Your task to perform on an android device: turn off data saver in the chrome app Image 0: 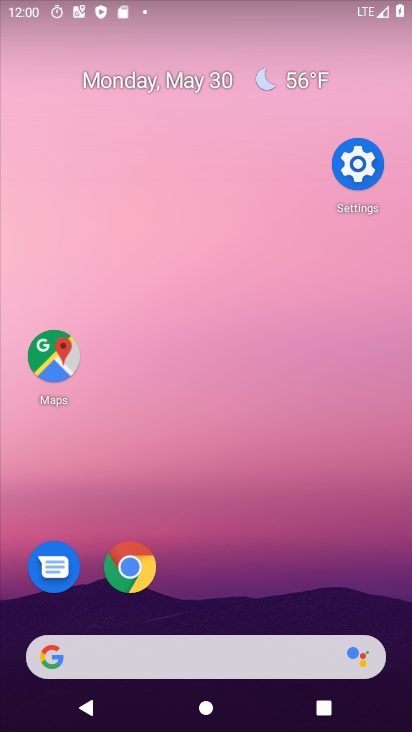
Step 0: drag from (330, 596) to (298, 214)
Your task to perform on an android device: turn off data saver in the chrome app Image 1: 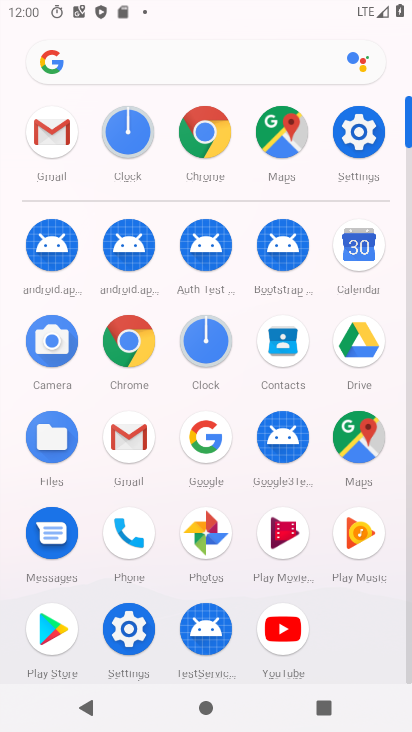
Step 1: click (105, 357)
Your task to perform on an android device: turn off data saver in the chrome app Image 2: 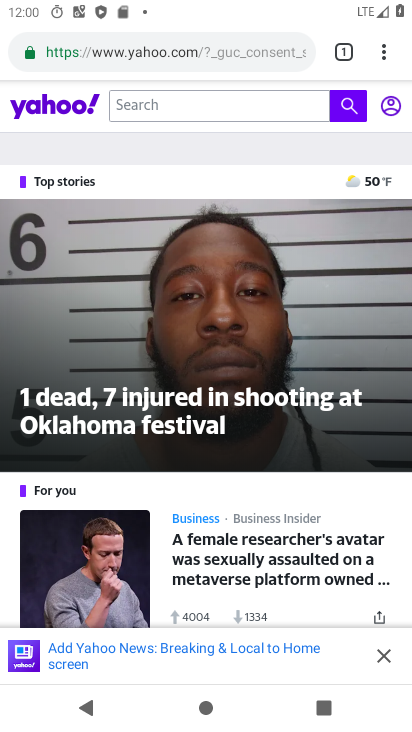
Step 2: drag from (378, 55) to (259, 605)
Your task to perform on an android device: turn off data saver in the chrome app Image 3: 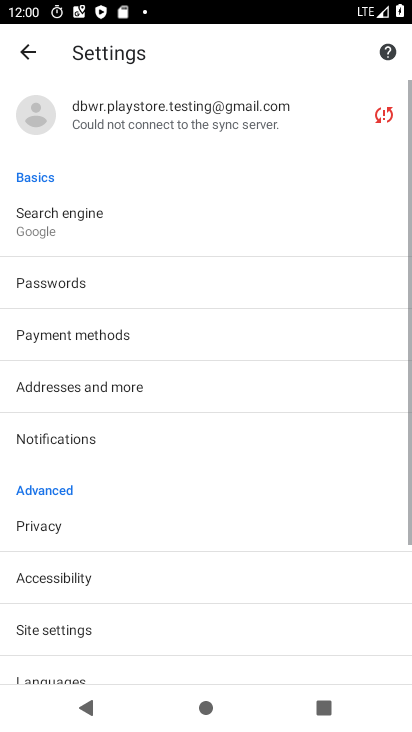
Step 3: drag from (218, 636) to (259, 285)
Your task to perform on an android device: turn off data saver in the chrome app Image 4: 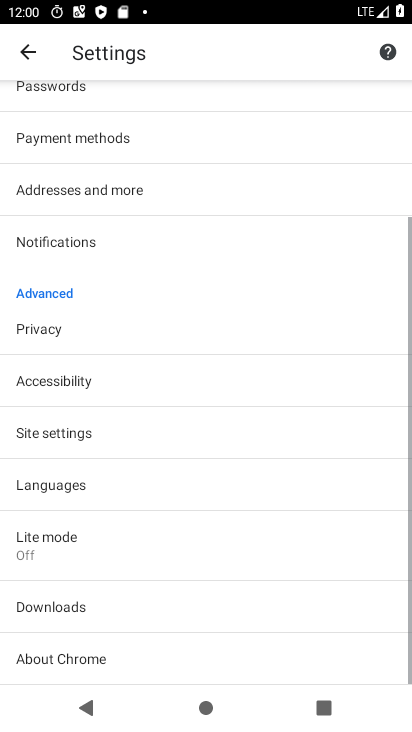
Step 4: drag from (191, 591) to (243, 326)
Your task to perform on an android device: turn off data saver in the chrome app Image 5: 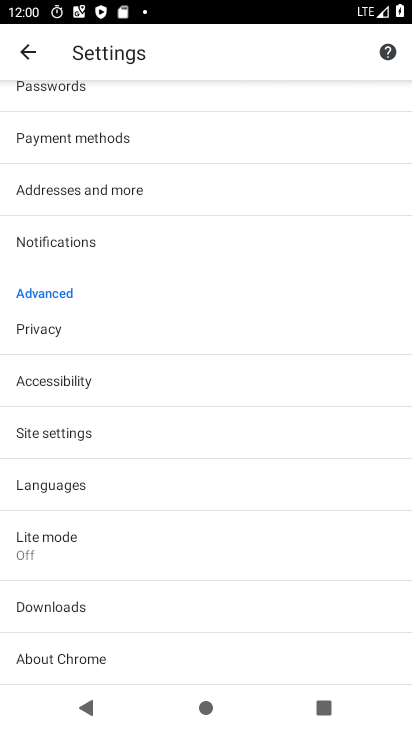
Step 5: click (64, 552)
Your task to perform on an android device: turn off data saver in the chrome app Image 6: 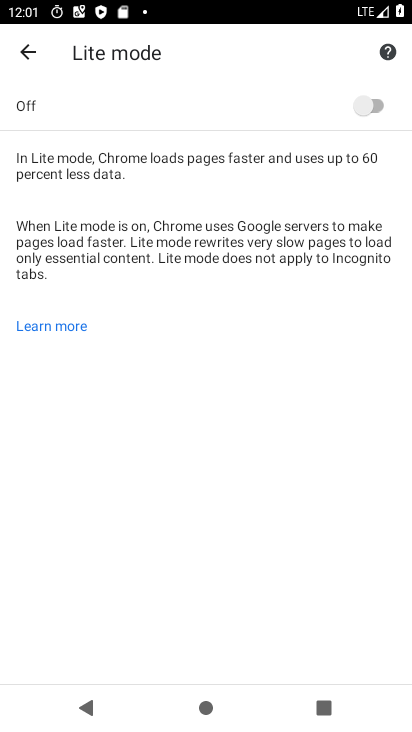
Step 6: task complete